Your task to perform on an android device: Show me popular videos on Youtube Image 0: 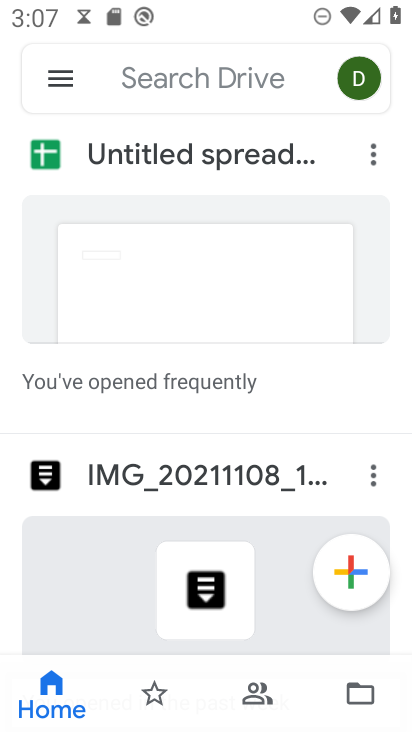
Step 0: press back button
Your task to perform on an android device: Show me popular videos on Youtube Image 1: 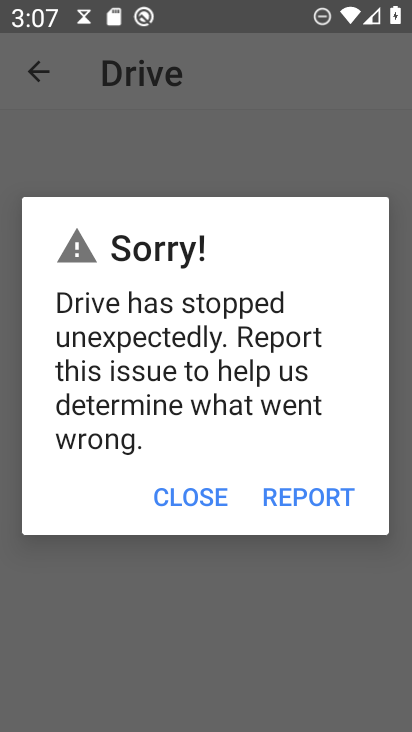
Step 1: press home button
Your task to perform on an android device: Show me popular videos on Youtube Image 2: 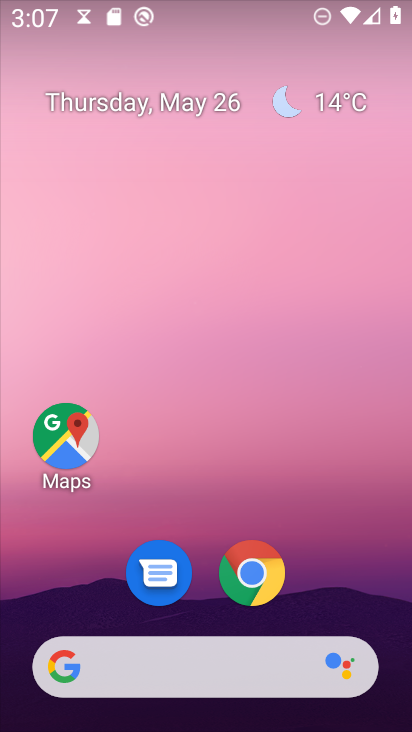
Step 2: drag from (362, 548) to (278, 36)
Your task to perform on an android device: Show me popular videos on Youtube Image 3: 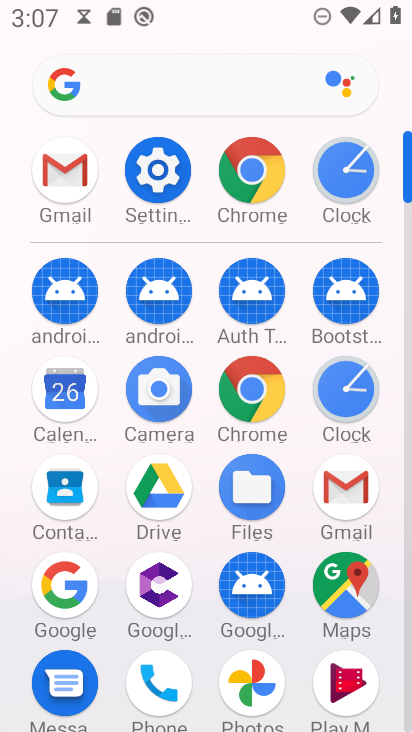
Step 3: drag from (7, 625) to (25, 292)
Your task to perform on an android device: Show me popular videos on Youtube Image 4: 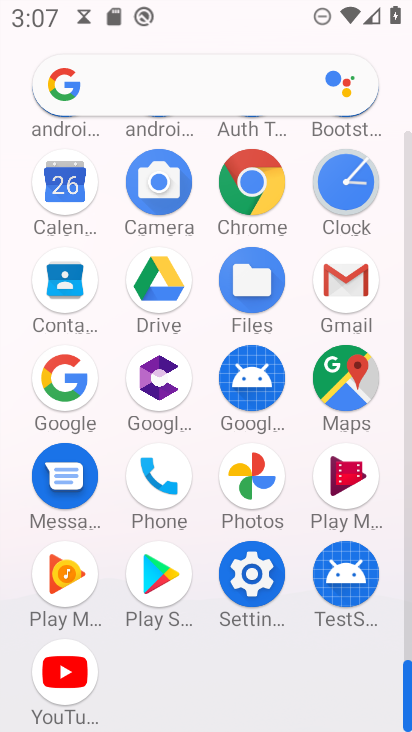
Step 4: click (55, 672)
Your task to perform on an android device: Show me popular videos on Youtube Image 5: 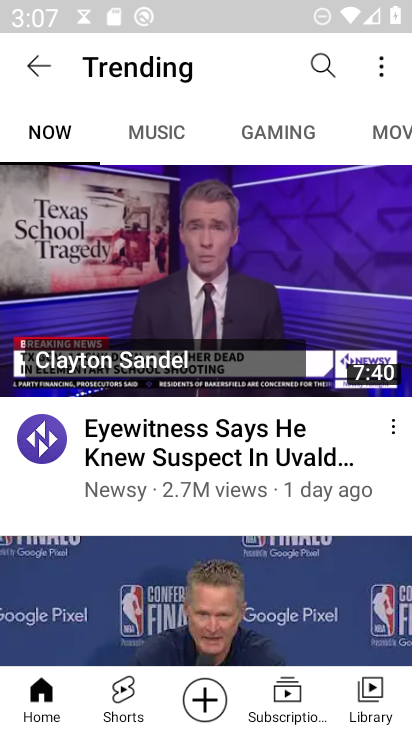
Step 5: click (45, 716)
Your task to perform on an android device: Show me popular videos on Youtube Image 6: 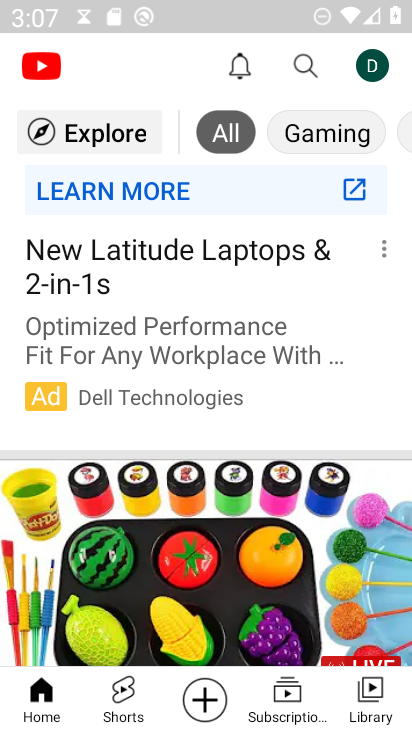
Step 6: drag from (197, 204) to (201, 433)
Your task to perform on an android device: Show me popular videos on Youtube Image 7: 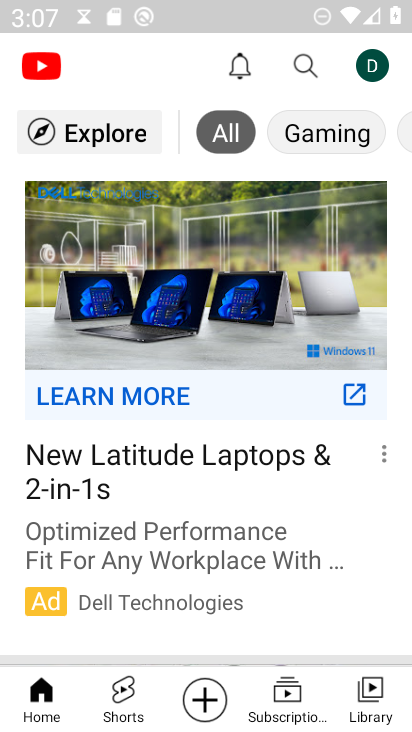
Step 7: click (117, 134)
Your task to perform on an android device: Show me popular videos on Youtube Image 8: 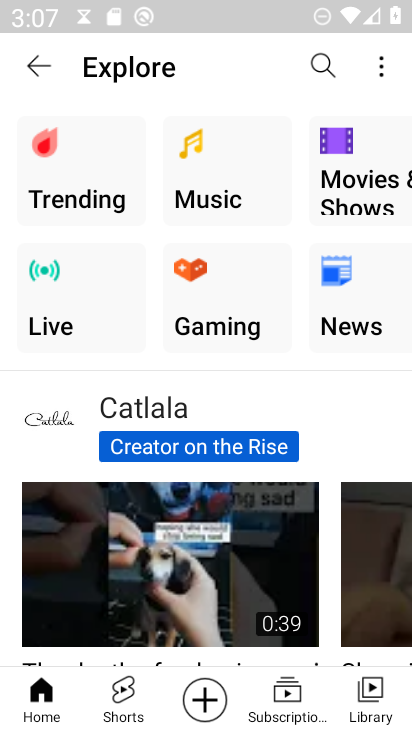
Step 8: click (89, 162)
Your task to perform on an android device: Show me popular videos on Youtube Image 9: 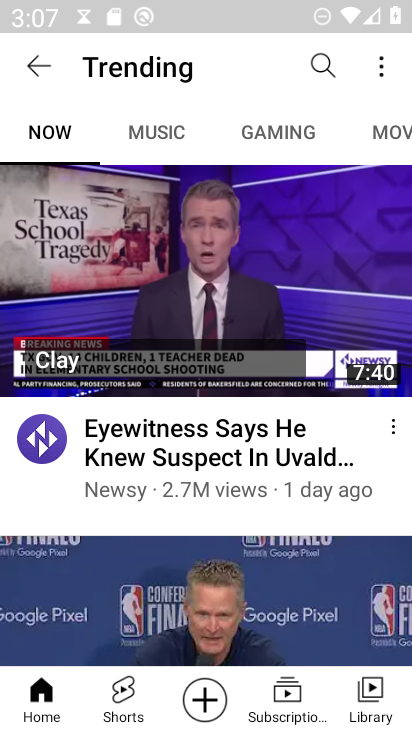
Step 9: task complete